Your task to perform on an android device: Search for pizza restaurants on Maps Image 0: 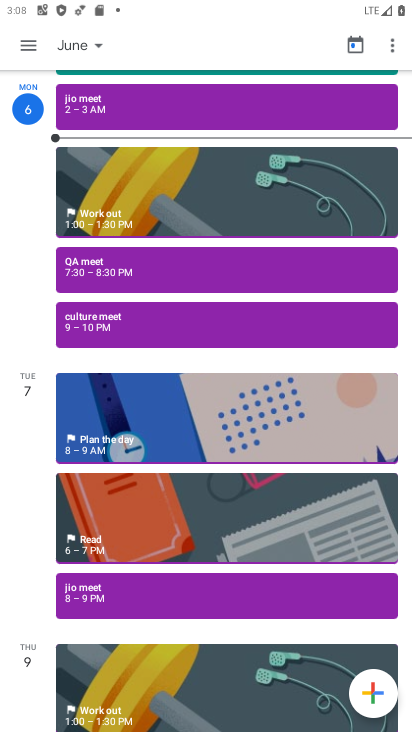
Step 0: press back button
Your task to perform on an android device: Search for pizza restaurants on Maps Image 1: 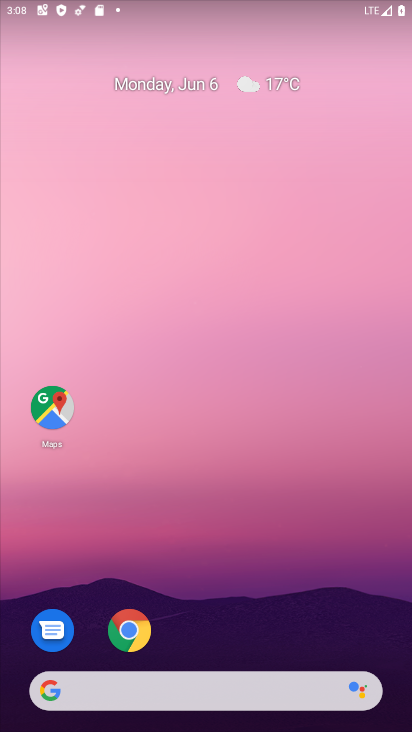
Step 1: click (55, 411)
Your task to perform on an android device: Search for pizza restaurants on Maps Image 2: 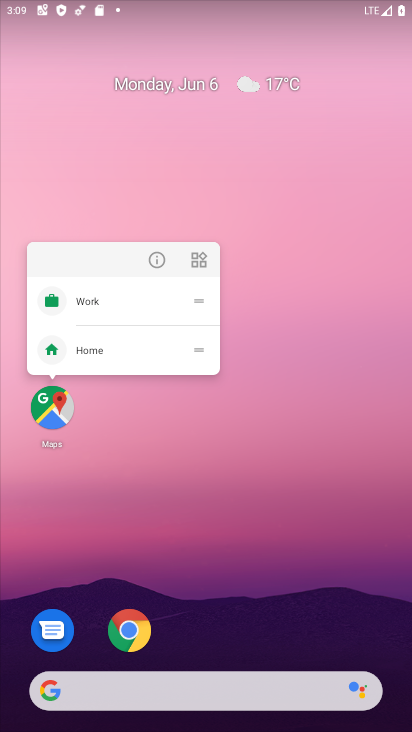
Step 2: click (51, 413)
Your task to perform on an android device: Search for pizza restaurants on Maps Image 3: 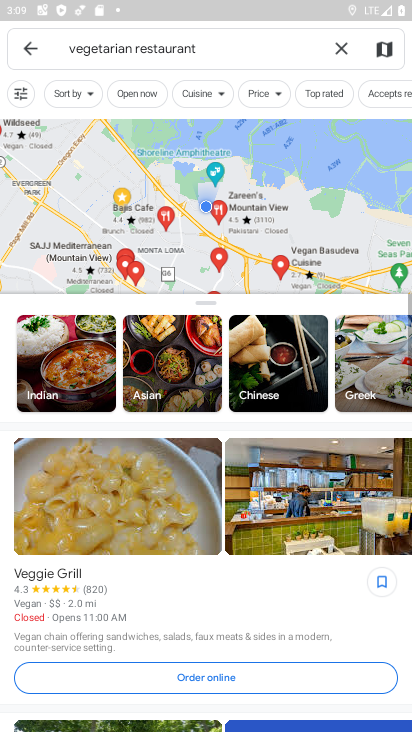
Step 3: click (339, 43)
Your task to perform on an android device: Search for pizza restaurants on Maps Image 4: 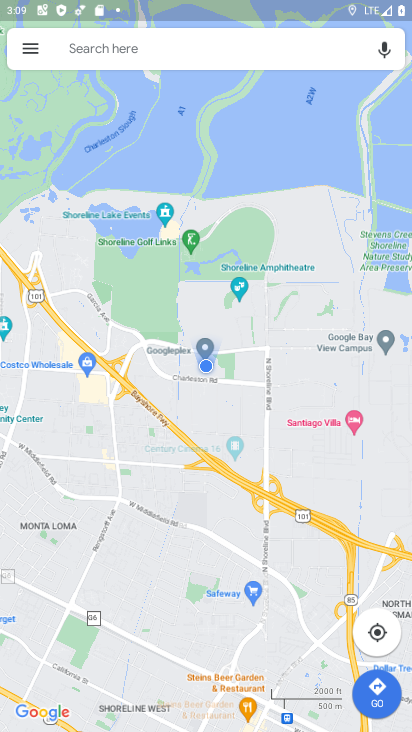
Step 4: click (107, 57)
Your task to perform on an android device: Search for pizza restaurants on Maps Image 5: 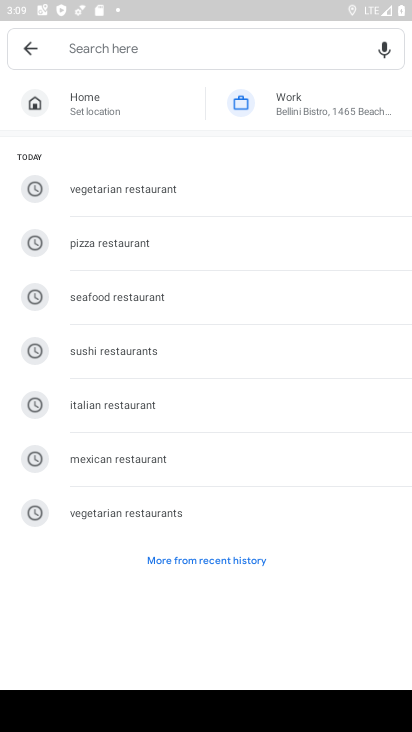
Step 5: click (96, 240)
Your task to perform on an android device: Search for pizza restaurants on Maps Image 6: 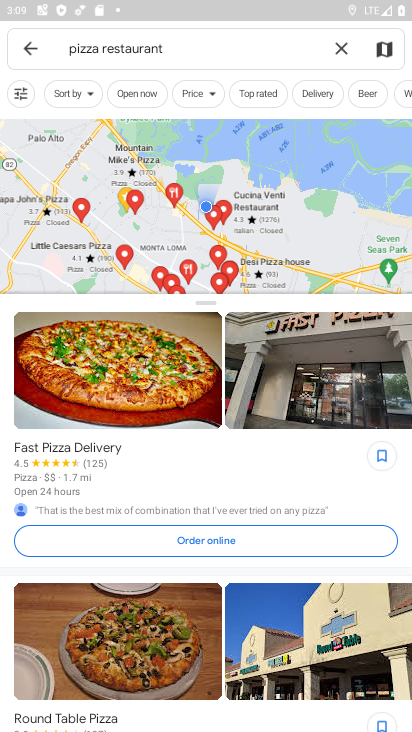
Step 6: task complete